Your task to perform on an android device: Do I have any events tomorrow? Image 0: 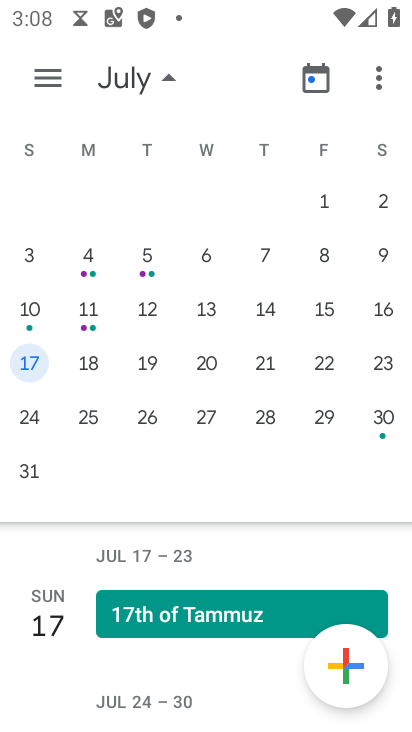
Step 0: press back button
Your task to perform on an android device: Do I have any events tomorrow? Image 1: 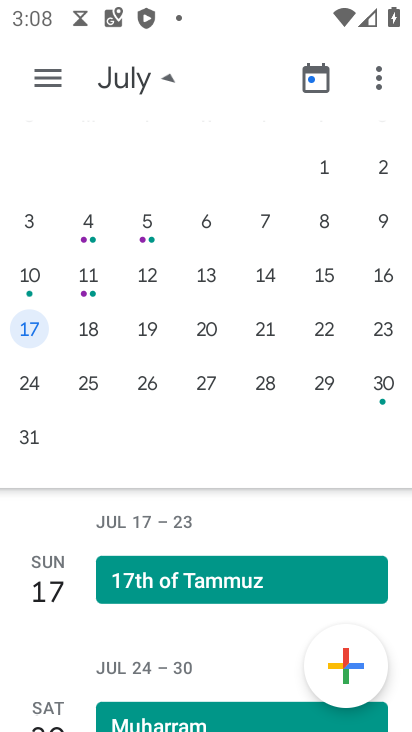
Step 1: press back button
Your task to perform on an android device: Do I have any events tomorrow? Image 2: 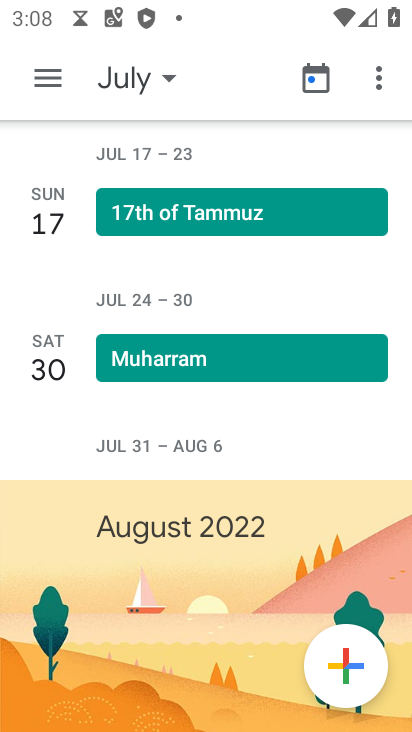
Step 2: press back button
Your task to perform on an android device: Do I have any events tomorrow? Image 3: 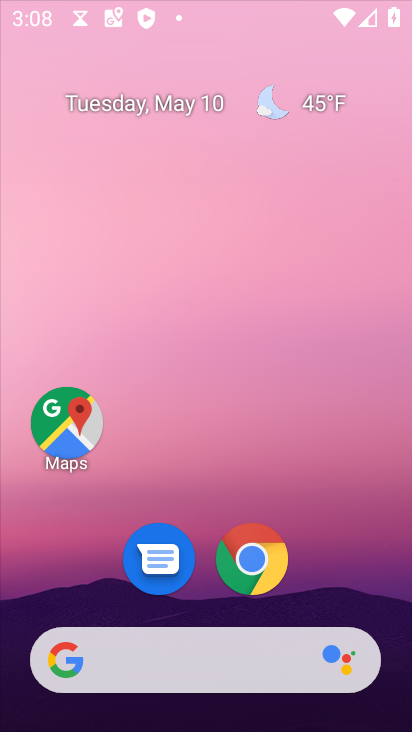
Step 3: press back button
Your task to perform on an android device: Do I have any events tomorrow? Image 4: 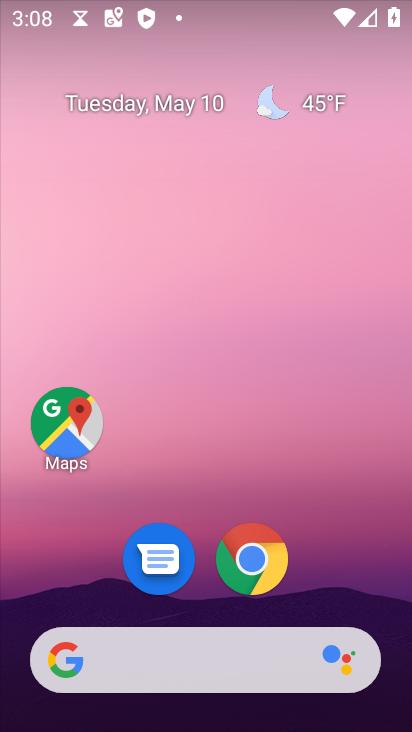
Step 4: drag from (360, 563) to (74, 25)
Your task to perform on an android device: Do I have any events tomorrow? Image 5: 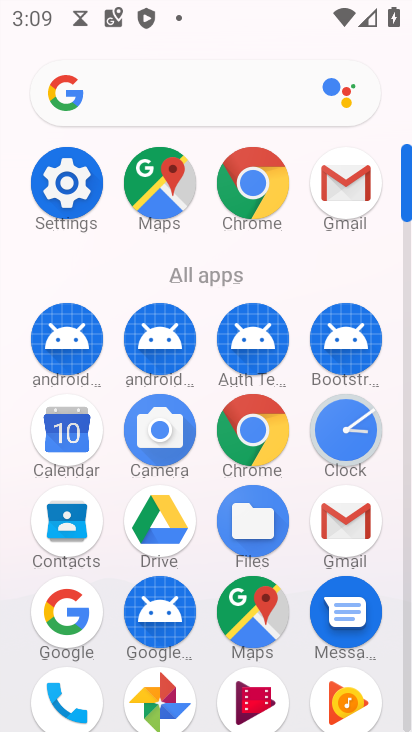
Step 5: click (94, 239)
Your task to perform on an android device: Do I have any events tomorrow? Image 6: 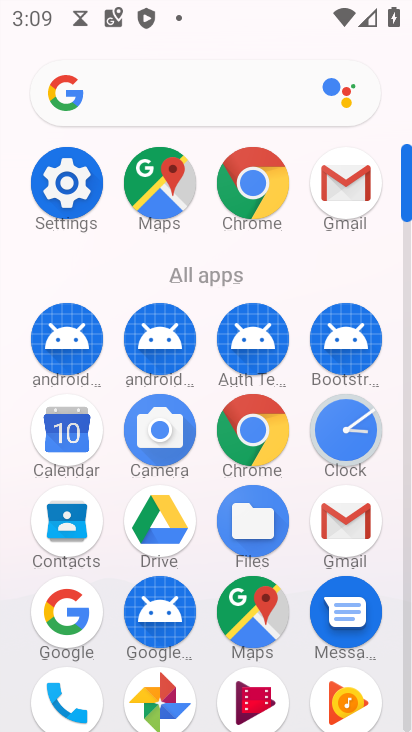
Step 6: click (65, 435)
Your task to perform on an android device: Do I have any events tomorrow? Image 7: 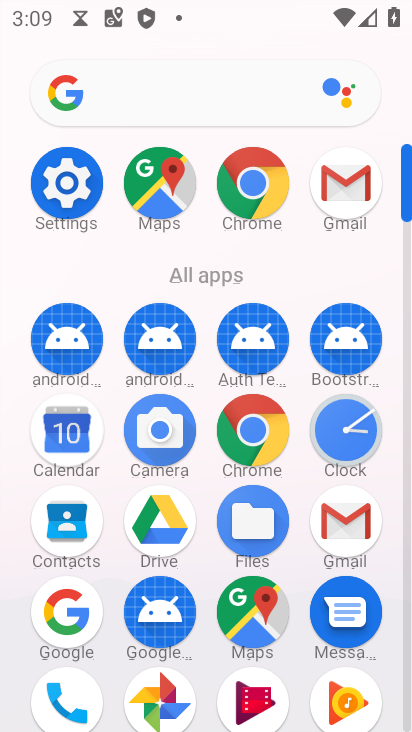
Step 7: click (64, 434)
Your task to perform on an android device: Do I have any events tomorrow? Image 8: 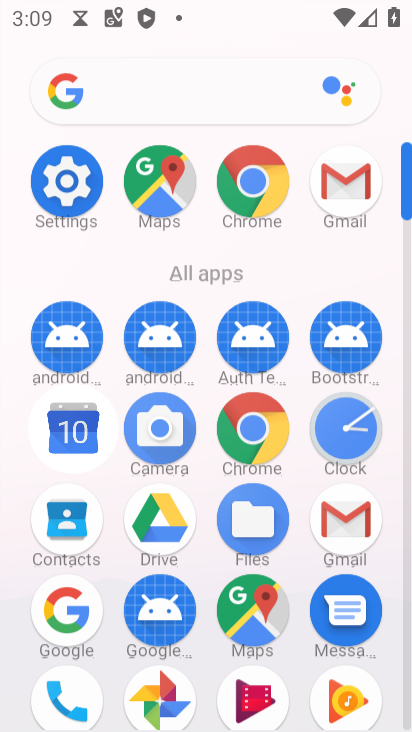
Step 8: click (63, 436)
Your task to perform on an android device: Do I have any events tomorrow? Image 9: 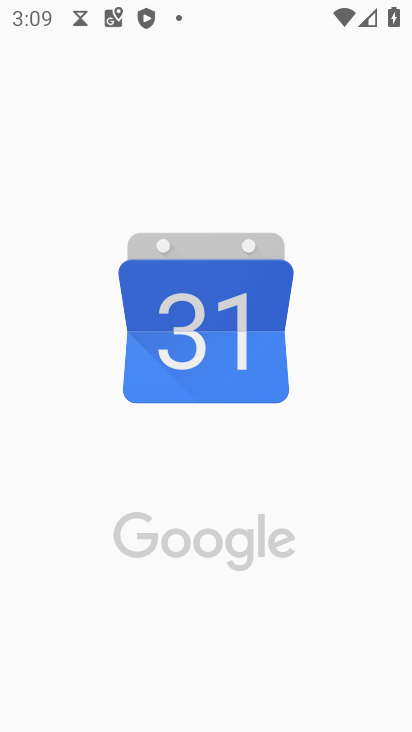
Step 9: click (64, 439)
Your task to perform on an android device: Do I have any events tomorrow? Image 10: 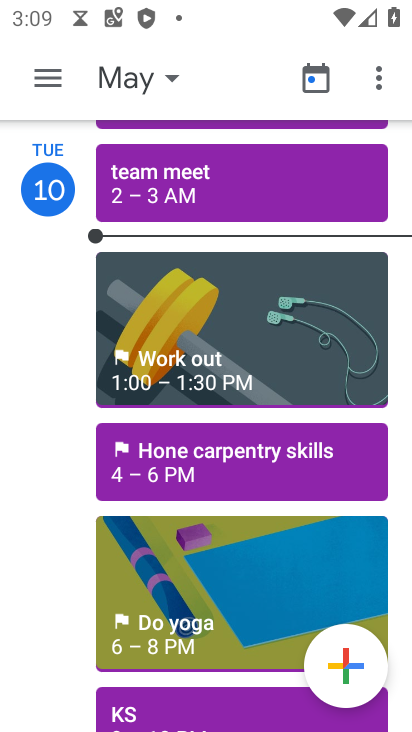
Step 10: drag from (199, 496) to (161, 303)
Your task to perform on an android device: Do I have any events tomorrow? Image 11: 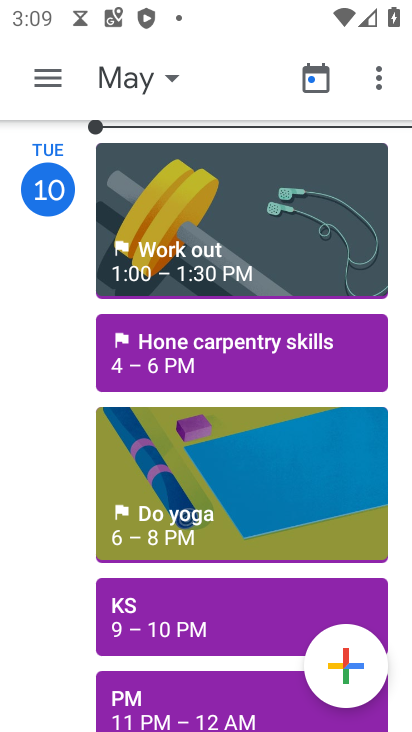
Step 11: drag from (126, 166) to (201, 552)
Your task to perform on an android device: Do I have any events tomorrow? Image 12: 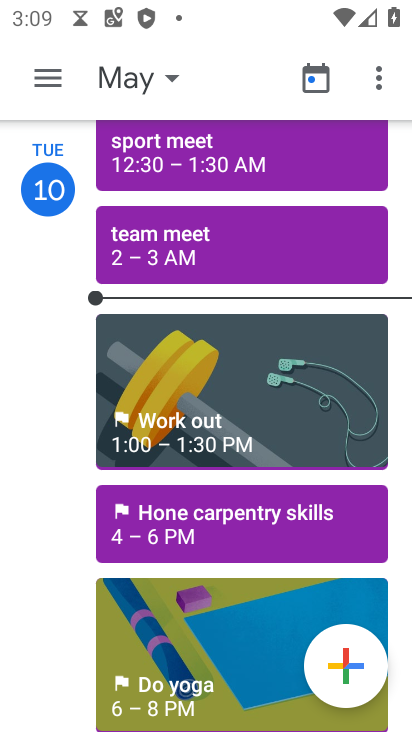
Step 12: drag from (189, 485) to (74, 55)
Your task to perform on an android device: Do I have any events tomorrow? Image 13: 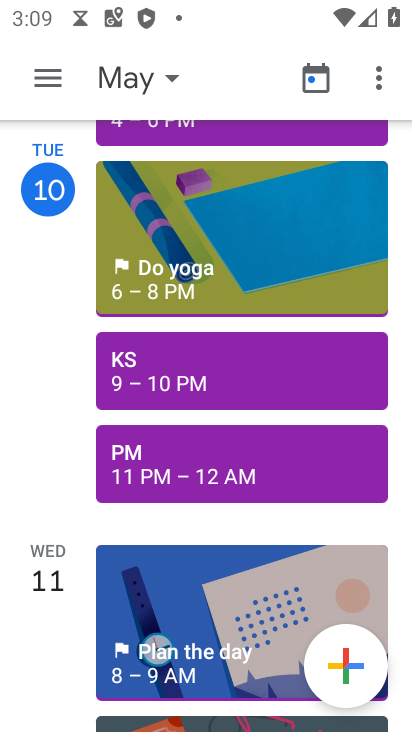
Step 13: drag from (192, 404) to (50, 44)
Your task to perform on an android device: Do I have any events tomorrow? Image 14: 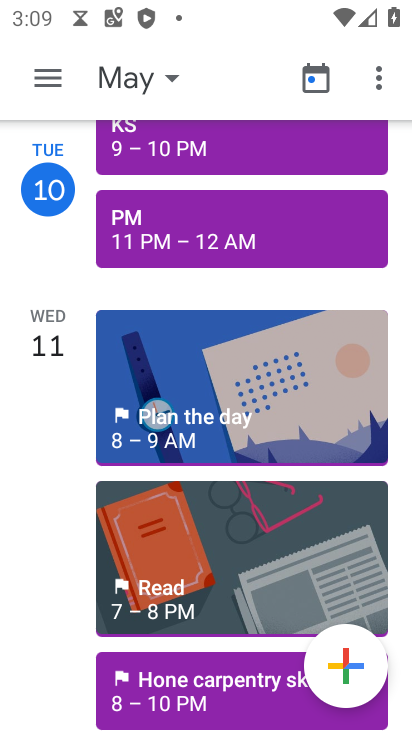
Step 14: drag from (196, 482) to (193, 36)
Your task to perform on an android device: Do I have any events tomorrow? Image 15: 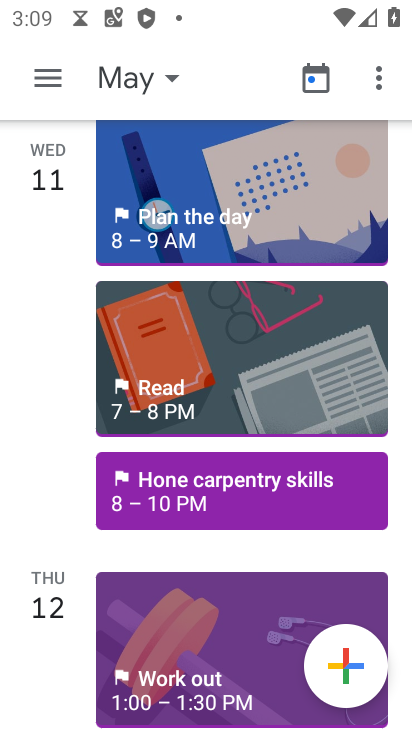
Step 15: drag from (240, 443) to (189, 38)
Your task to perform on an android device: Do I have any events tomorrow? Image 16: 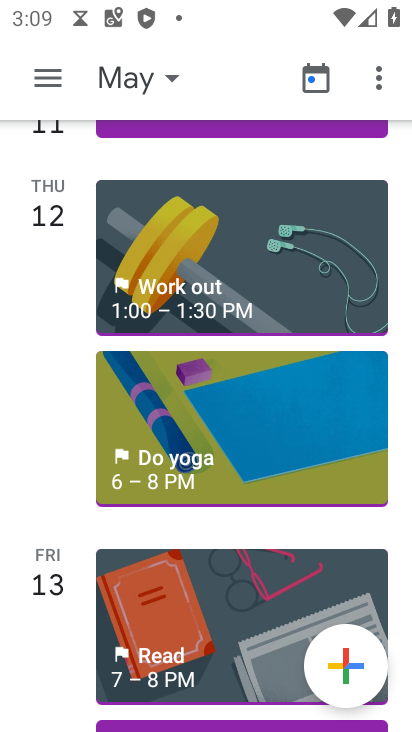
Step 16: drag from (183, 497) to (103, 109)
Your task to perform on an android device: Do I have any events tomorrow? Image 17: 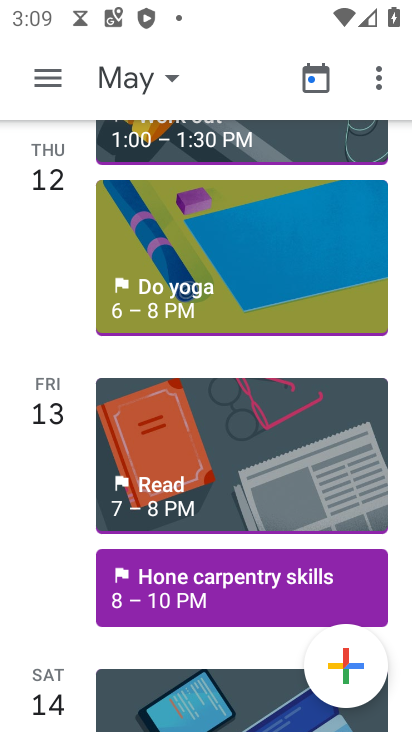
Step 17: drag from (203, 364) to (129, 96)
Your task to perform on an android device: Do I have any events tomorrow? Image 18: 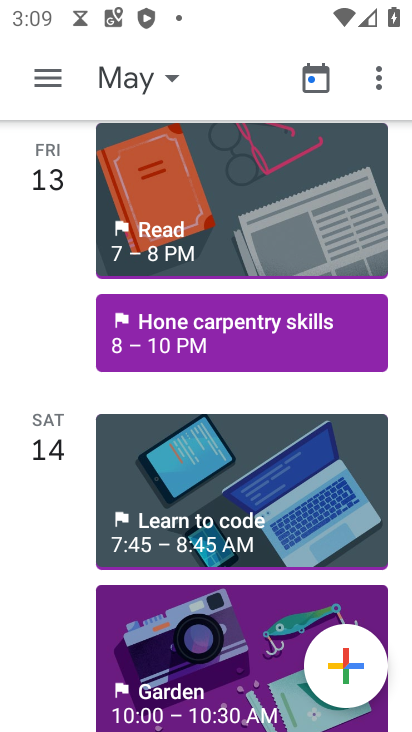
Step 18: drag from (184, 460) to (136, 124)
Your task to perform on an android device: Do I have any events tomorrow? Image 19: 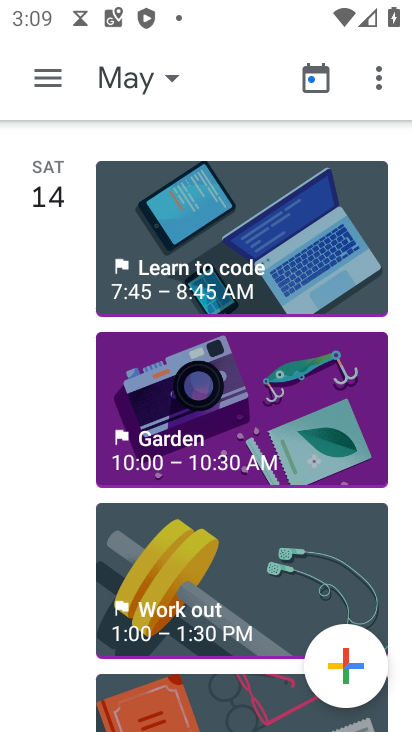
Step 19: drag from (165, 492) to (144, 95)
Your task to perform on an android device: Do I have any events tomorrow? Image 20: 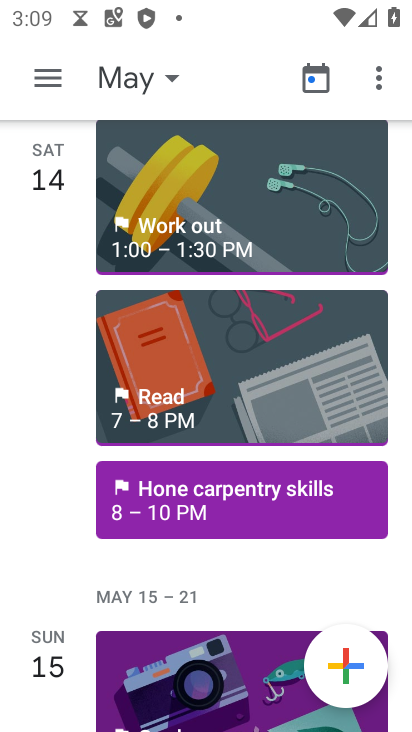
Step 20: drag from (179, 445) to (126, 20)
Your task to perform on an android device: Do I have any events tomorrow? Image 21: 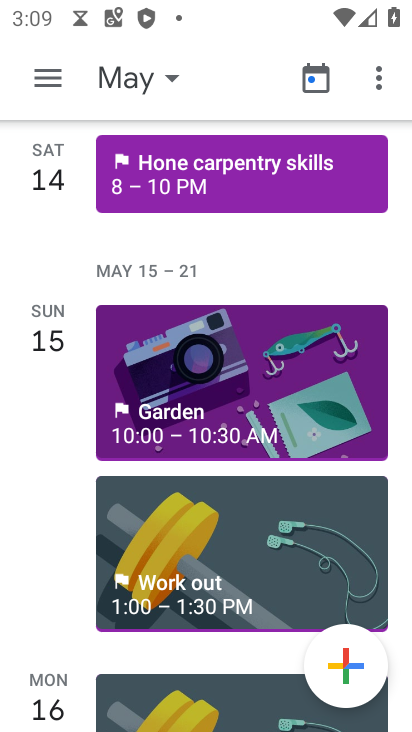
Step 21: drag from (152, 439) to (110, 5)
Your task to perform on an android device: Do I have any events tomorrow? Image 22: 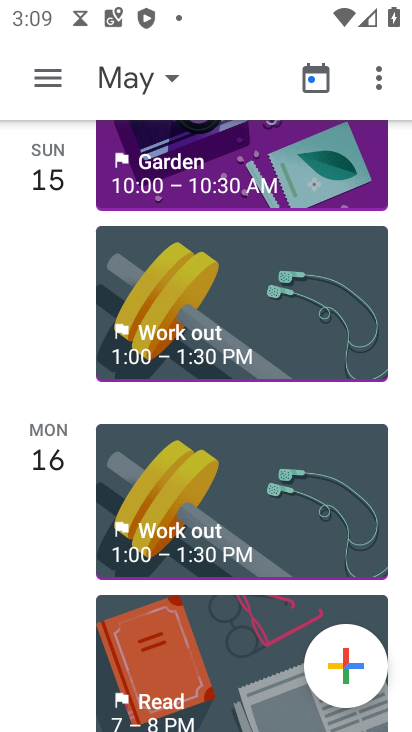
Step 22: drag from (175, 412) to (172, 4)
Your task to perform on an android device: Do I have any events tomorrow? Image 23: 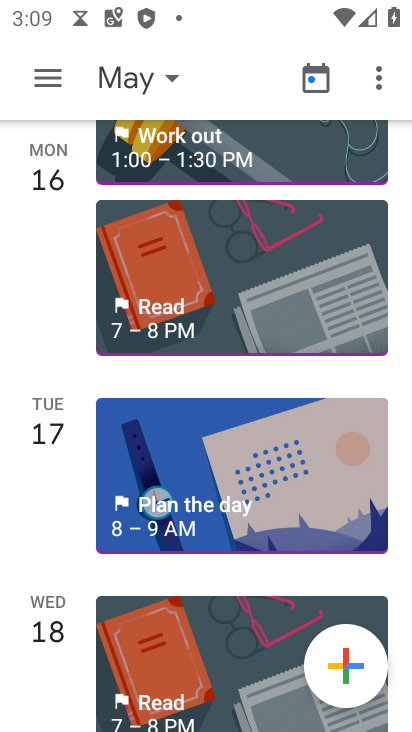
Step 23: drag from (215, 500) to (185, 52)
Your task to perform on an android device: Do I have any events tomorrow? Image 24: 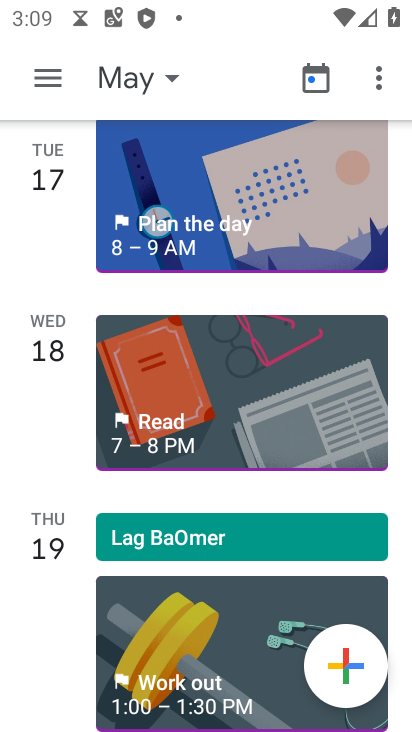
Step 24: drag from (190, 390) to (104, 40)
Your task to perform on an android device: Do I have any events tomorrow? Image 25: 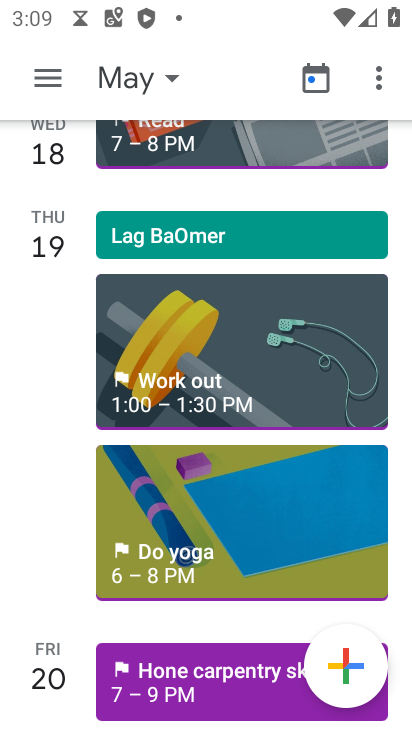
Step 25: drag from (172, 546) to (142, 321)
Your task to perform on an android device: Do I have any events tomorrow? Image 26: 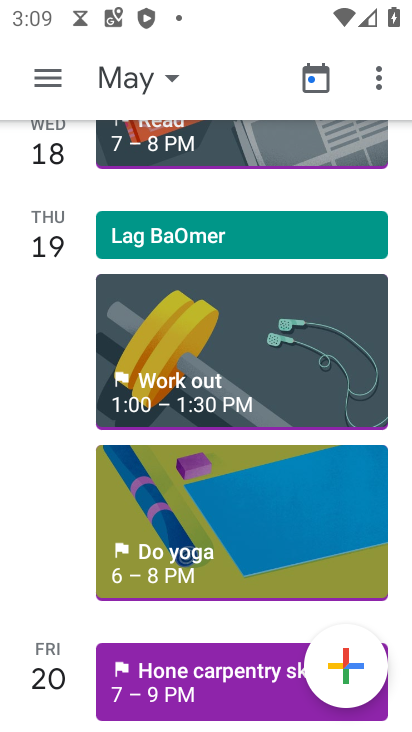
Step 26: drag from (175, 437) to (147, 22)
Your task to perform on an android device: Do I have any events tomorrow? Image 27: 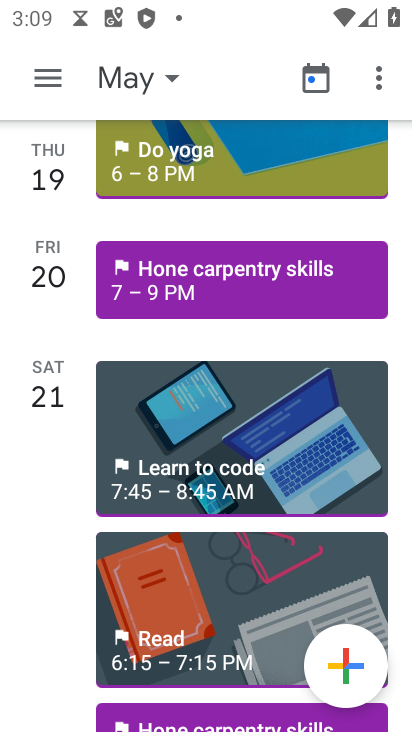
Step 27: drag from (213, 403) to (181, 31)
Your task to perform on an android device: Do I have any events tomorrow? Image 28: 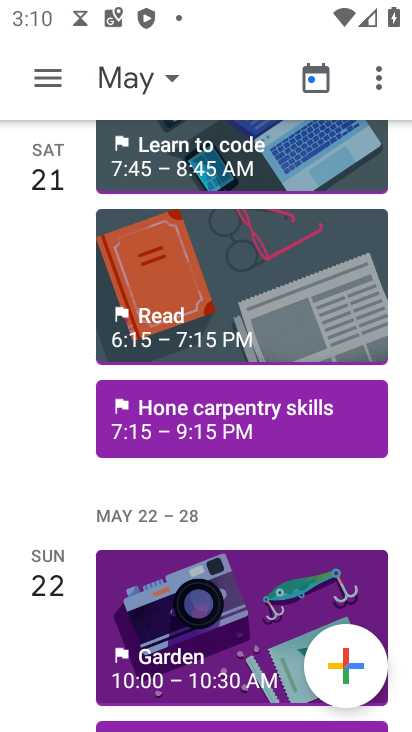
Step 28: drag from (227, 479) to (148, 130)
Your task to perform on an android device: Do I have any events tomorrow? Image 29: 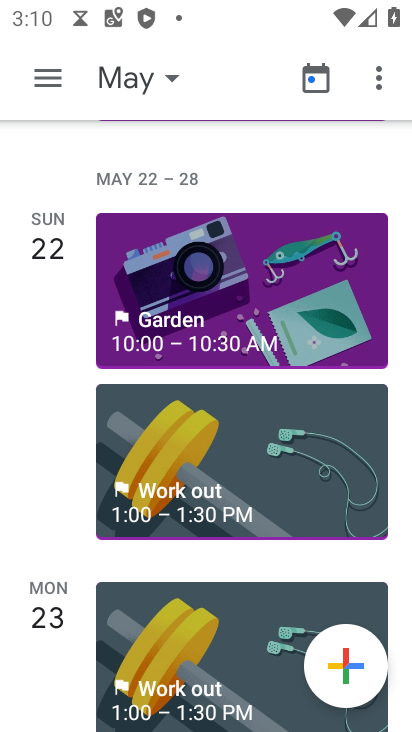
Step 29: click (63, 16)
Your task to perform on an android device: Do I have any events tomorrow? Image 30: 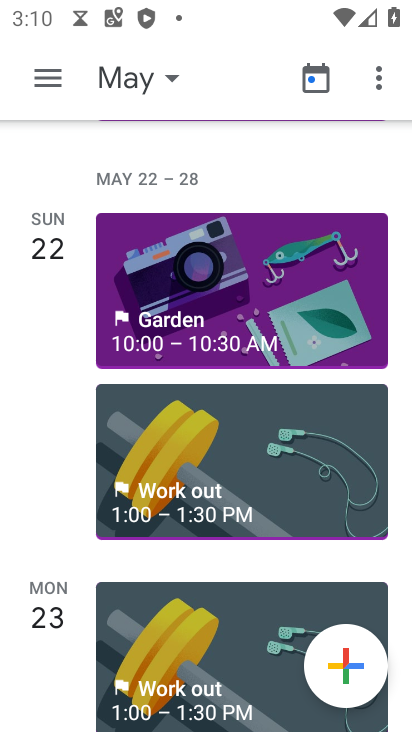
Step 30: task complete